Your task to perform on an android device: change the upload size in google photos Image 0: 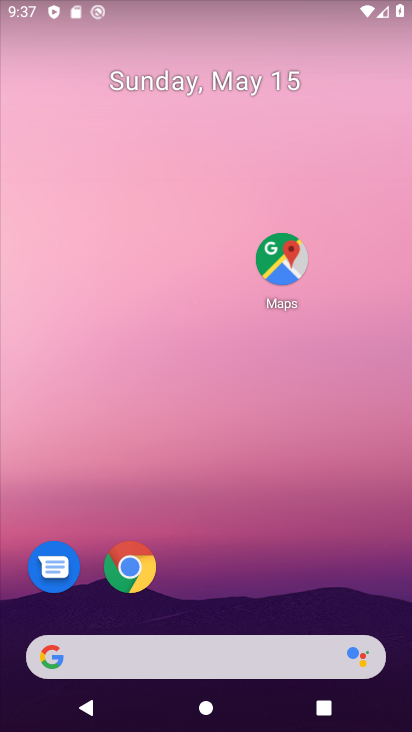
Step 0: drag from (249, 566) to (243, 63)
Your task to perform on an android device: change the upload size in google photos Image 1: 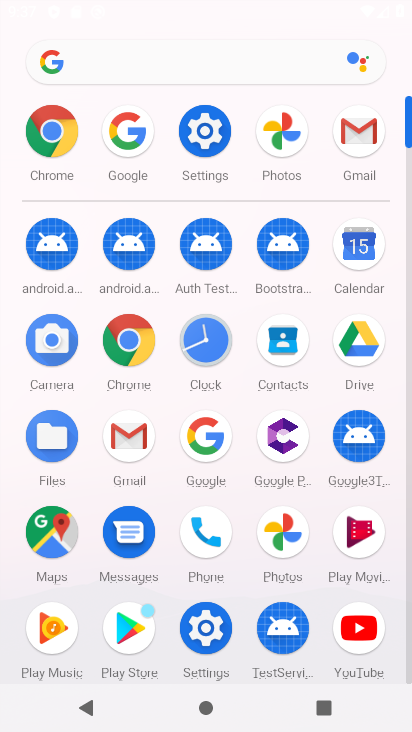
Step 1: click (292, 533)
Your task to perform on an android device: change the upload size in google photos Image 2: 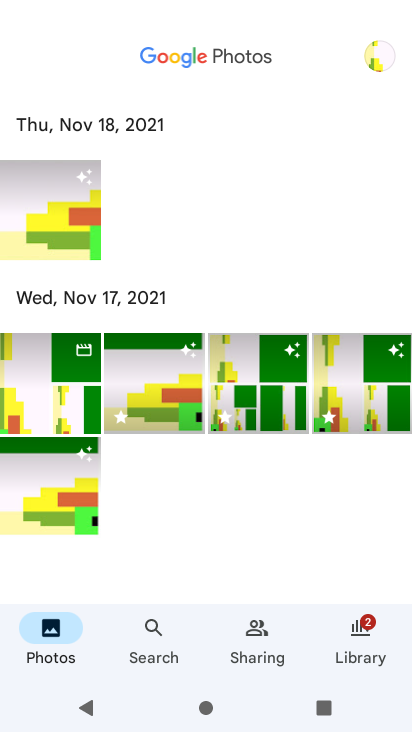
Step 2: click (374, 61)
Your task to perform on an android device: change the upload size in google photos Image 3: 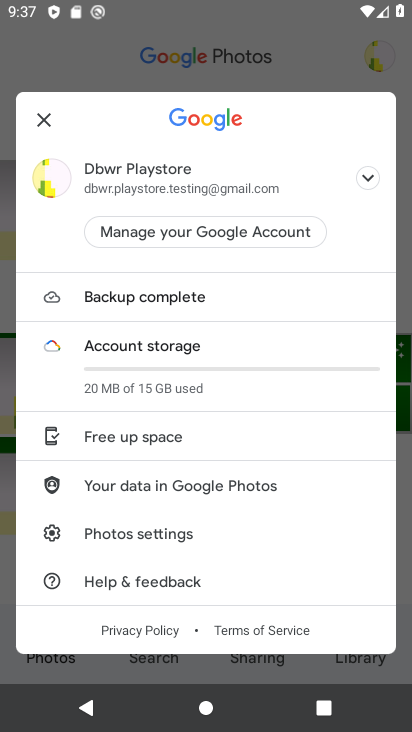
Step 3: click (116, 537)
Your task to perform on an android device: change the upload size in google photos Image 4: 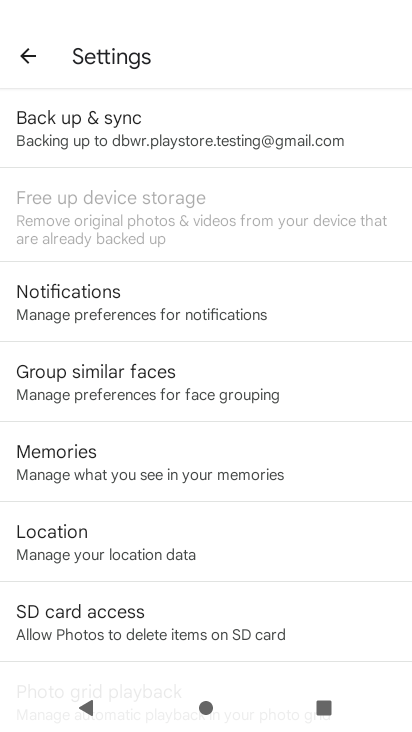
Step 4: click (82, 117)
Your task to perform on an android device: change the upload size in google photos Image 5: 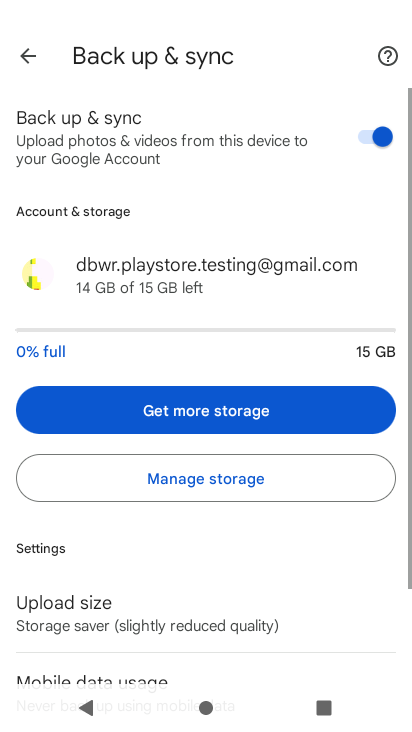
Step 5: drag from (165, 593) to (186, 251)
Your task to perform on an android device: change the upload size in google photos Image 6: 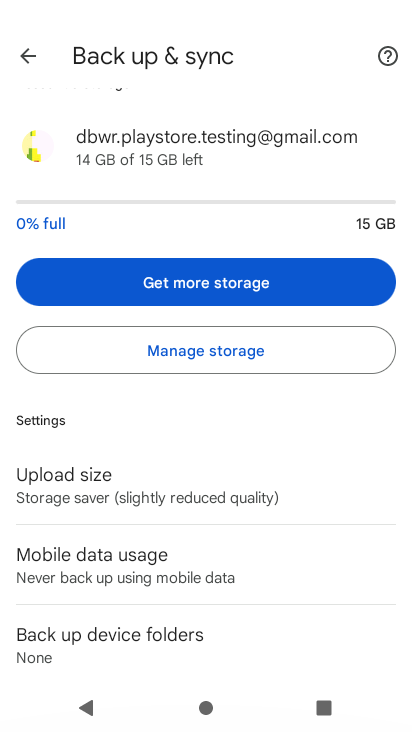
Step 6: click (140, 487)
Your task to perform on an android device: change the upload size in google photos Image 7: 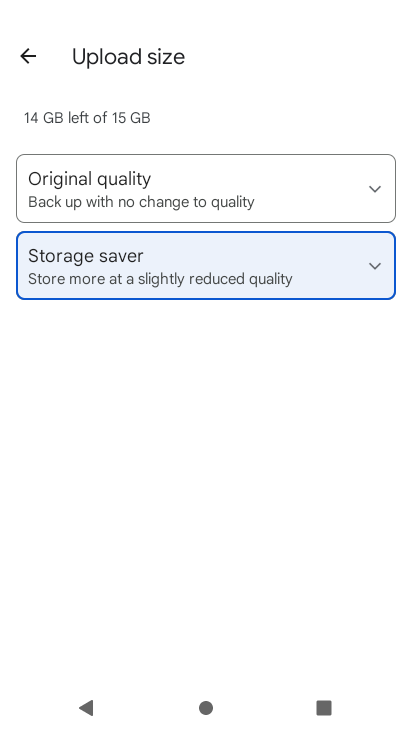
Step 7: click (91, 181)
Your task to perform on an android device: change the upload size in google photos Image 8: 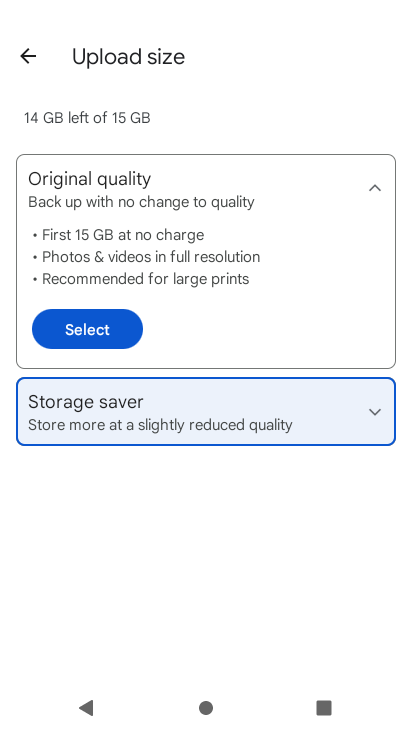
Step 8: click (94, 320)
Your task to perform on an android device: change the upload size in google photos Image 9: 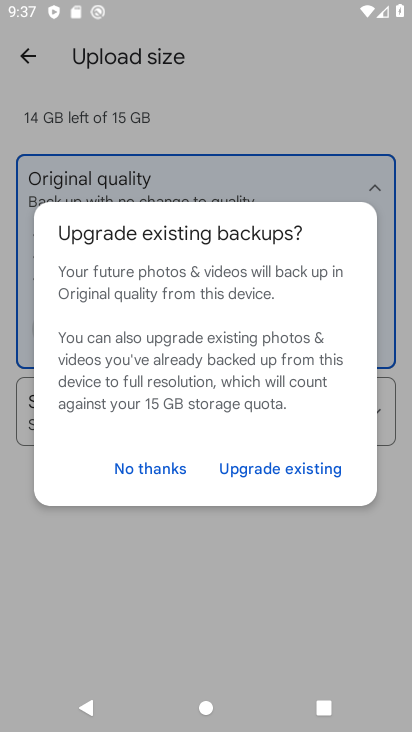
Step 9: click (151, 473)
Your task to perform on an android device: change the upload size in google photos Image 10: 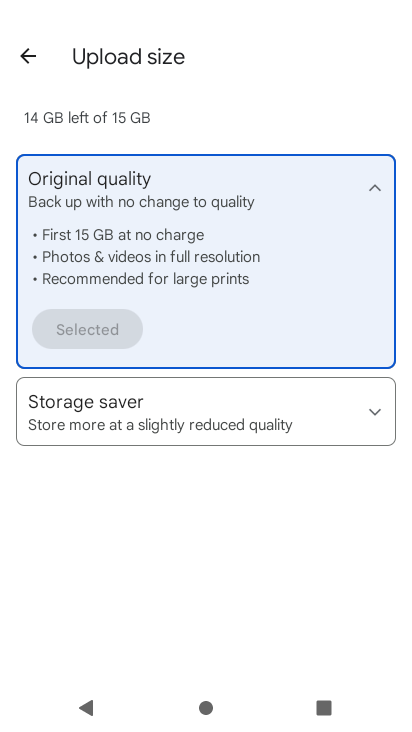
Step 10: task complete